Your task to perform on an android device: Empty the shopping cart on ebay. Image 0: 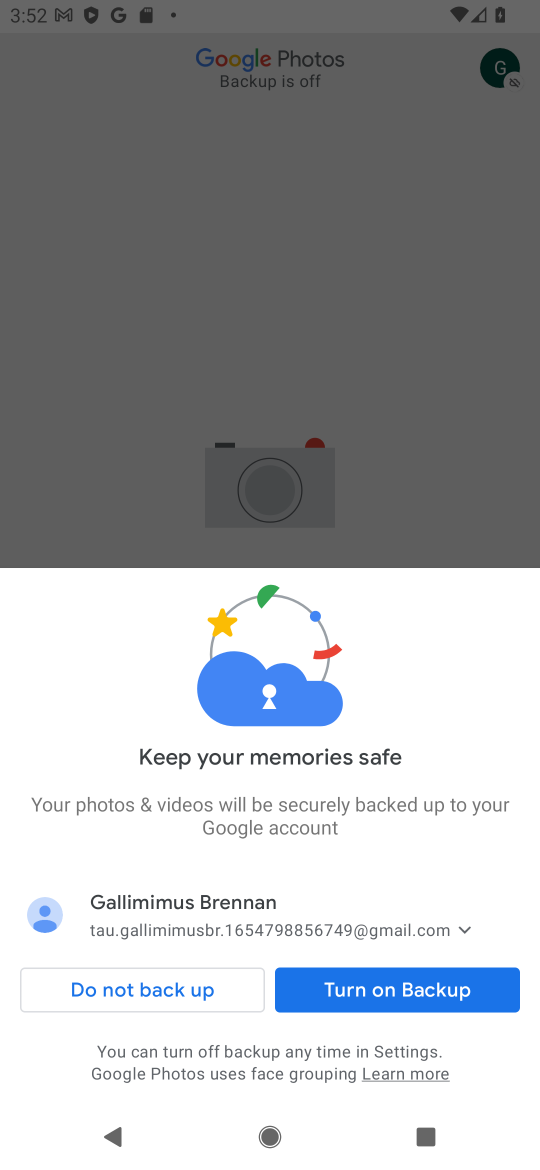
Step 0: press home button
Your task to perform on an android device: Empty the shopping cart on ebay. Image 1: 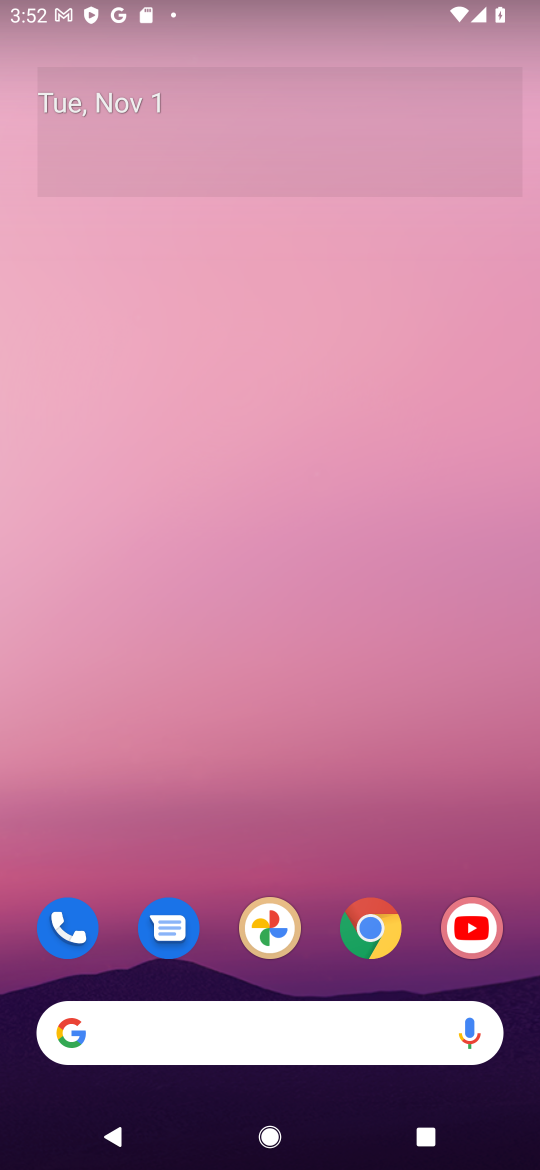
Step 1: click (384, 938)
Your task to perform on an android device: Empty the shopping cart on ebay. Image 2: 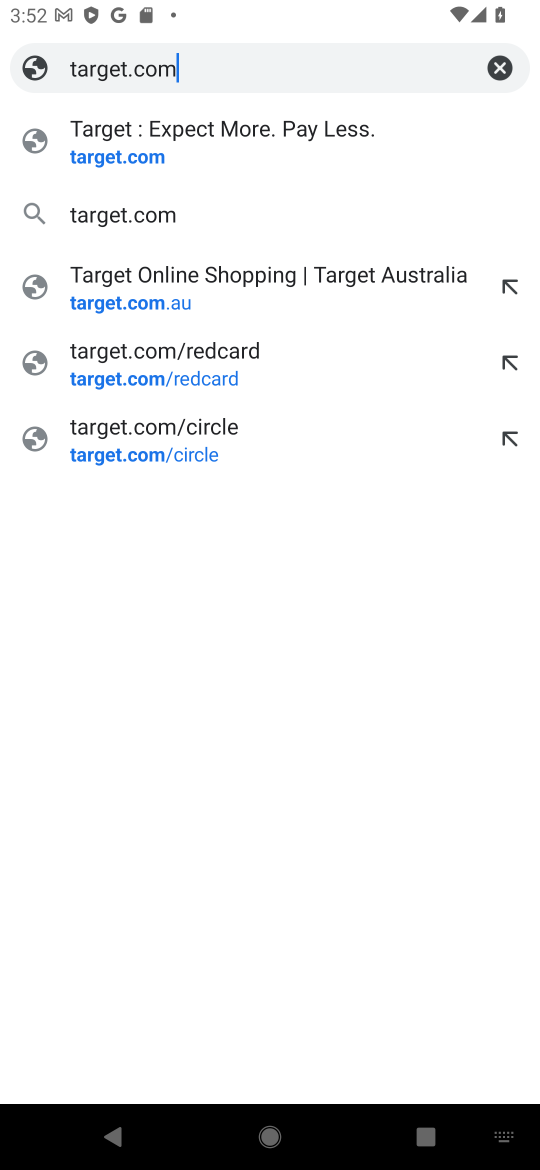
Step 2: click (507, 58)
Your task to perform on an android device: Empty the shopping cart on ebay. Image 3: 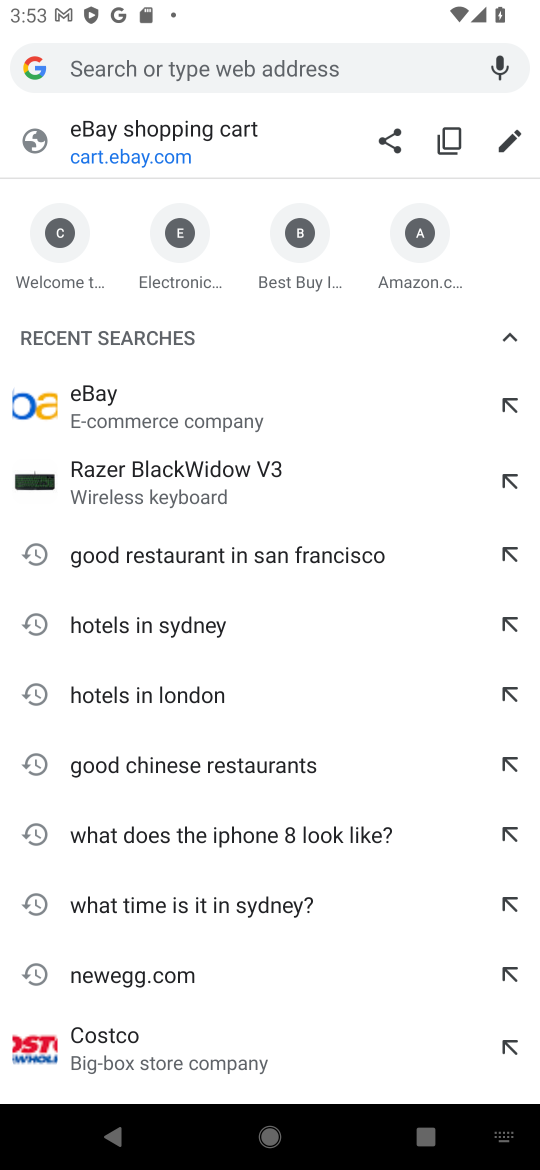
Step 3: type "ebay"
Your task to perform on an android device: Empty the shopping cart on ebay. Image 4: 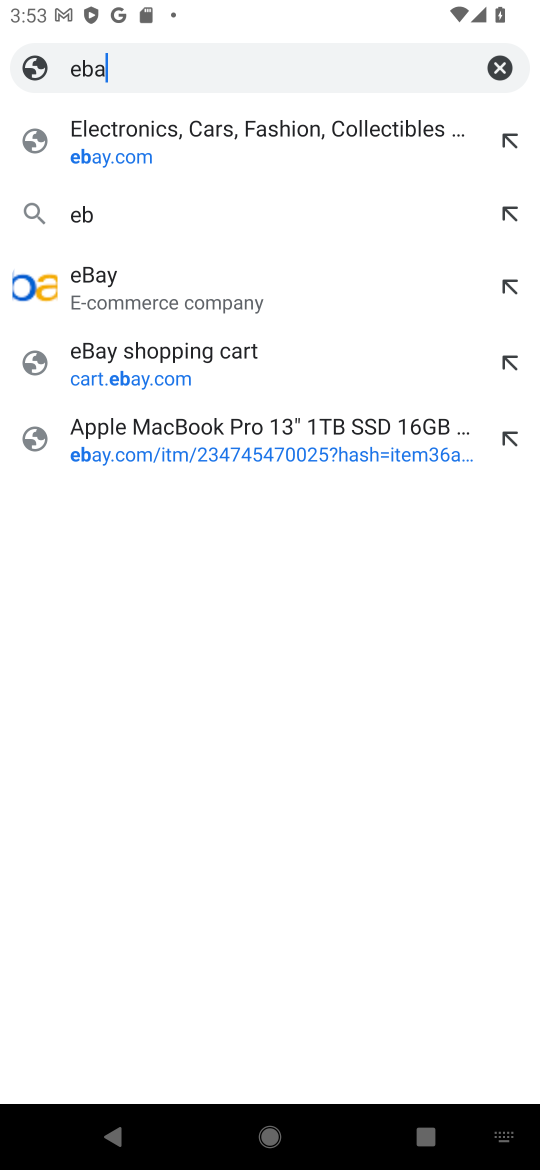
Step 4: press enter
Your task to perform on an android device: Empty the shopping cart on ebay. Image 5: 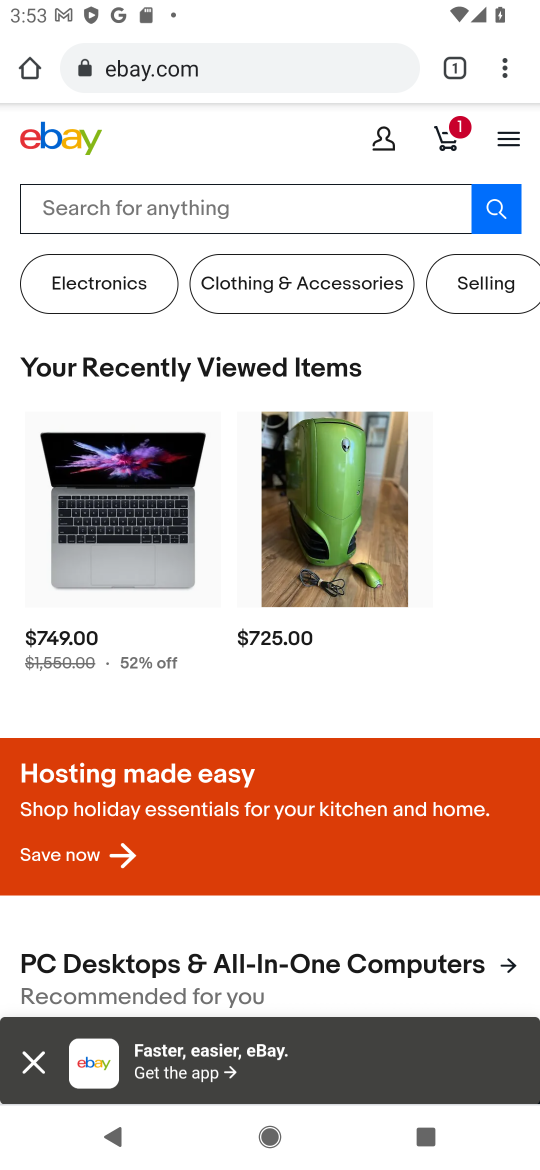
Step 5: click (452, 130)
Your task to perform on an android device: Empty the shopping cart on ebay. Image 6: 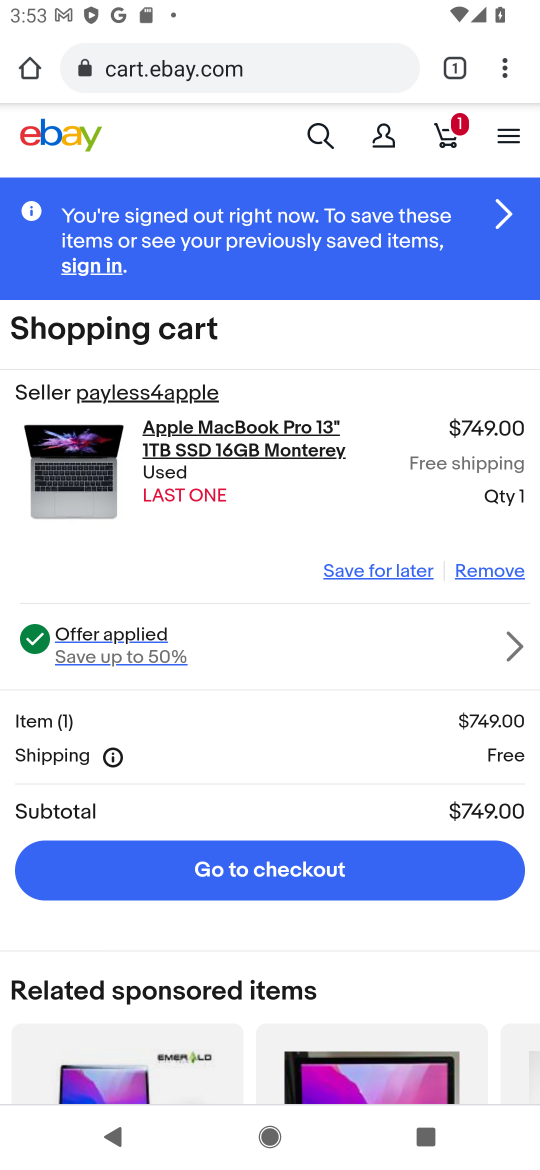
Step 6: click (482, 565)
Your task to perform on an android device: Empty the shopping cart on ebay. Image 7: 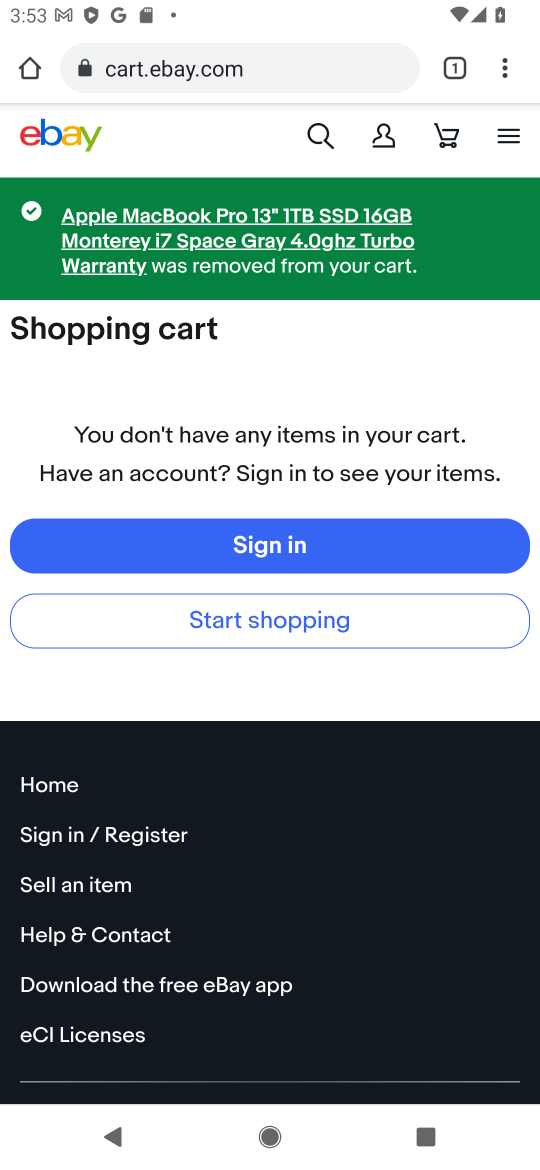
Step 7: task complete